Your task to perform on an android device: turn on wifi Image 0: 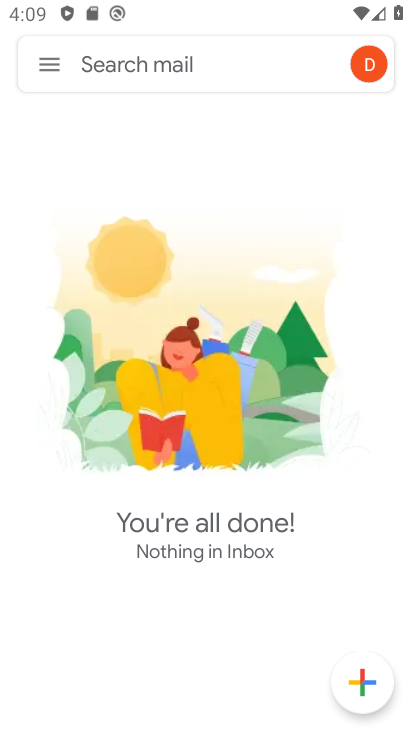
Step 0: press back button
Your task to perform on an android device: turn on wifi Image 1: 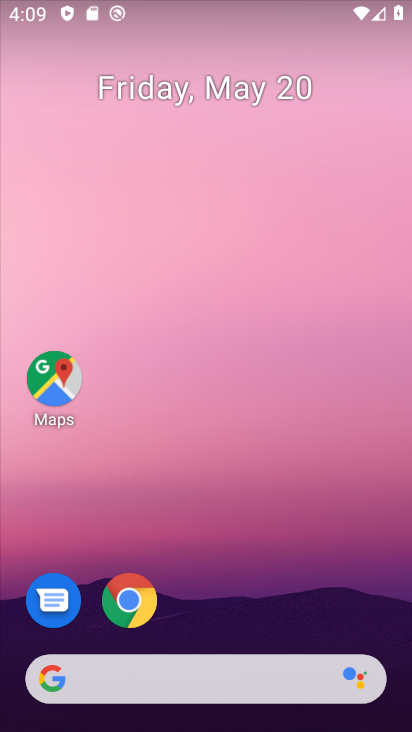
Step 1: drag from (253, 608) to (170, 3)
Your task to perform on an android device: turn on wifi Image 2: 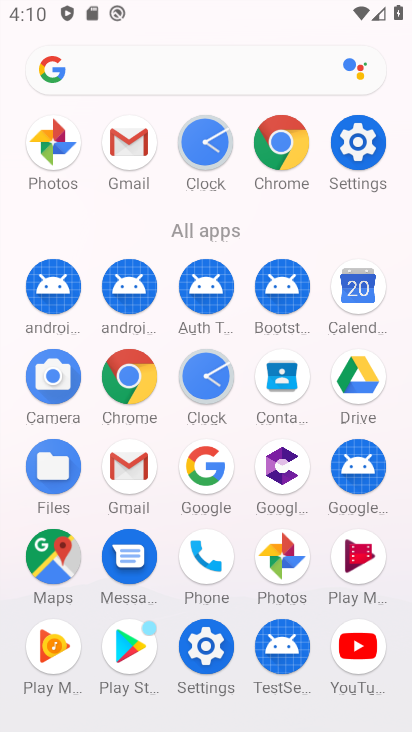
Step 2: click (204, 641)
Your task to perform on an android device: turn on wifi Image 3: 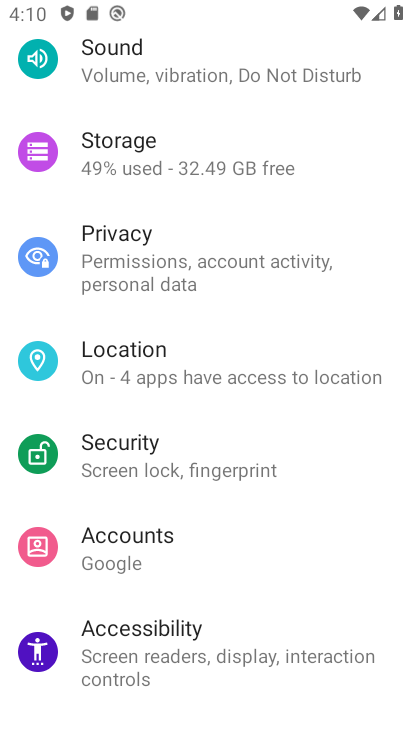
Step 3: drag from (183, 136) to (170, 566)
Your task to perform on an android device: turn on wifi Image 4: 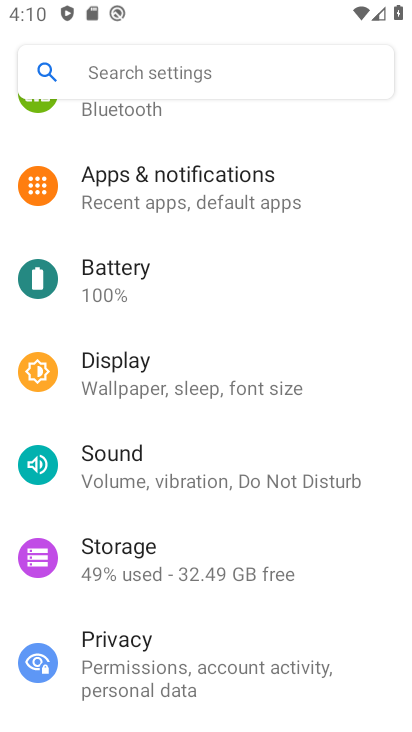
Step 4: drag from (163, 216) to (174, 598)
Your task to perform on an android device: turn on wifi Image 5: 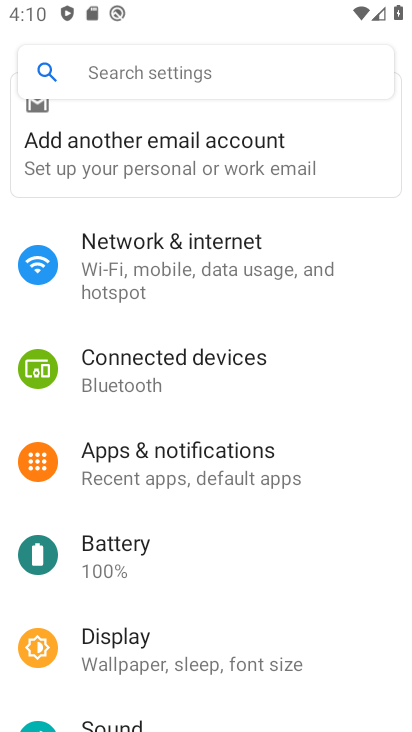
Step 5: click (165, 257)
Your task to perform on an android device: turn on wifi Image 6: 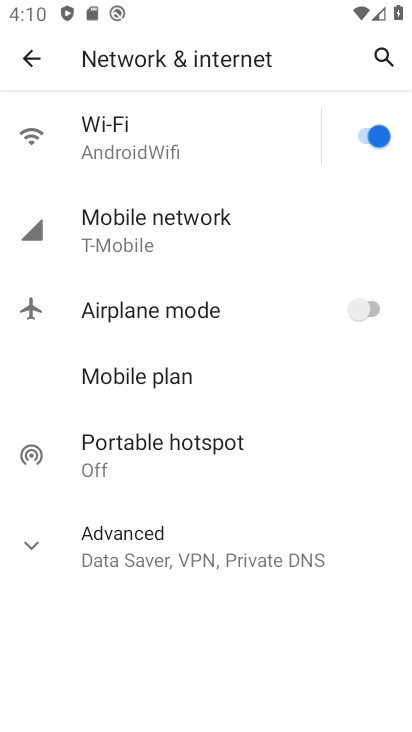
Step 6: task complete